Your task to perform on an android device: Do I have any events this weekend? Image 0: 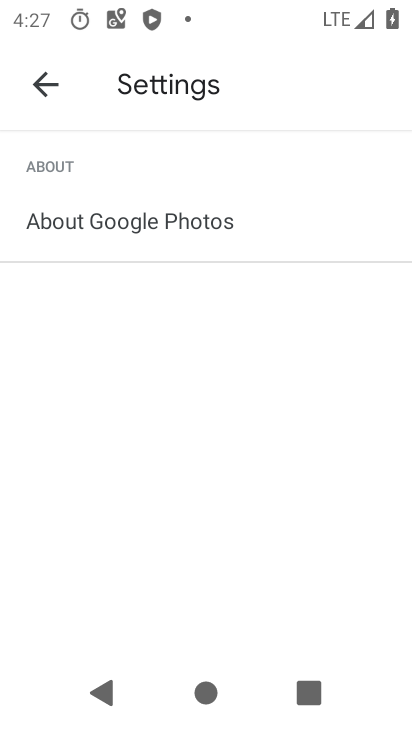
Step 0: press home button
Your task to perform on an android device: Do I have any events this weekend? Image 1: 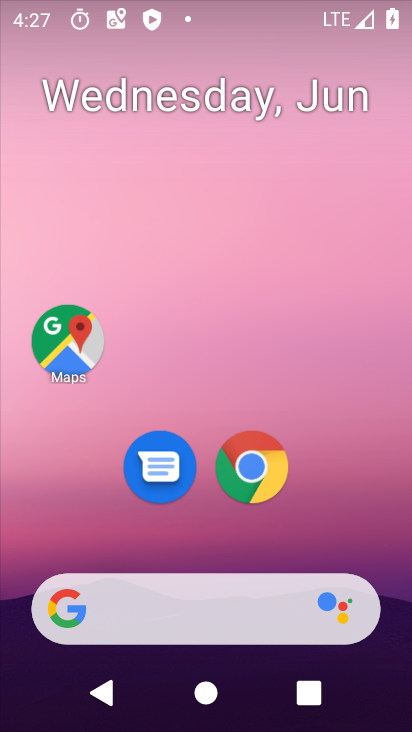
Step 1: drag from (343, 586) to (294, 37)
Your task to perform on an android device: Do I have any events this weekend? Image 2: 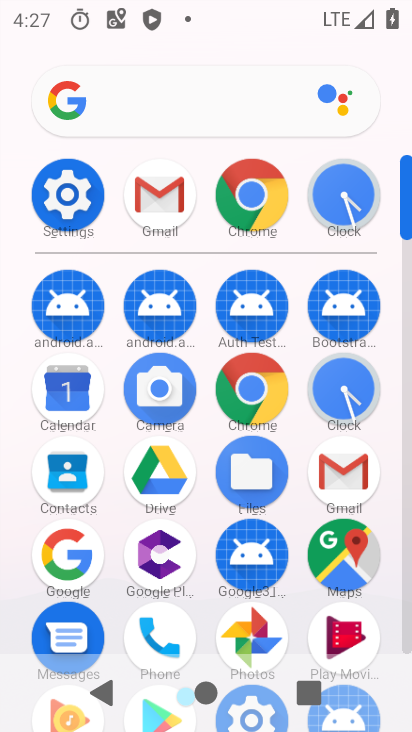
Step 2: click (68, 398)
Your task to perform on an android device: Do I have any events this weekend? Image 3: 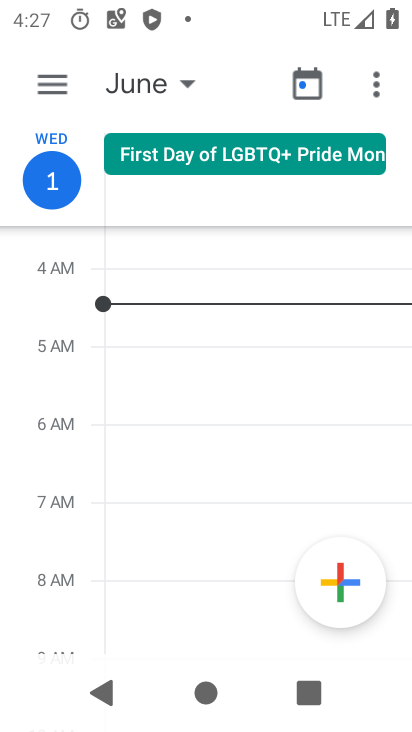
Step 3: click (149, 80)
Your task to perform on an android device: Do I have any events this weekend? Image 4: 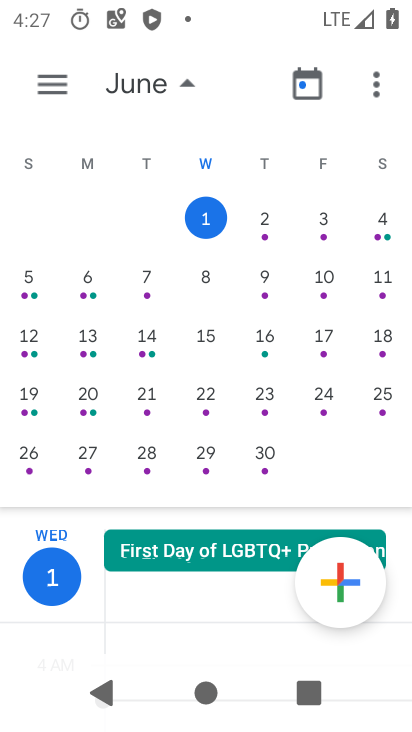
Step 4: click (52, 79)
Your task to perform on an android device: Do I have any events this weekend? Image 5: 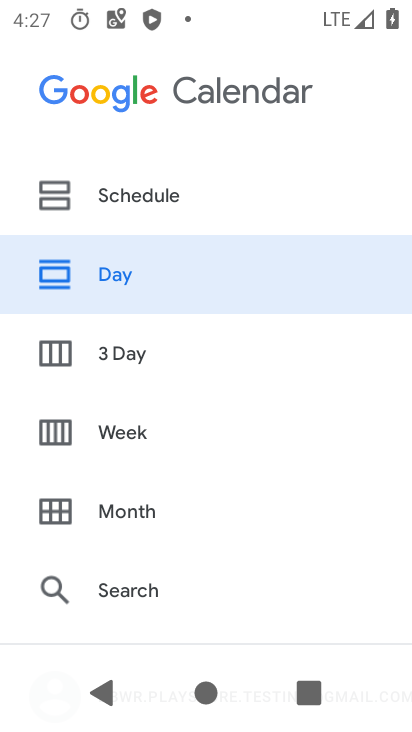
Step 5: click (135, 451)
Your task to perform on an android device: Do I have any events this weekend? Image 6: 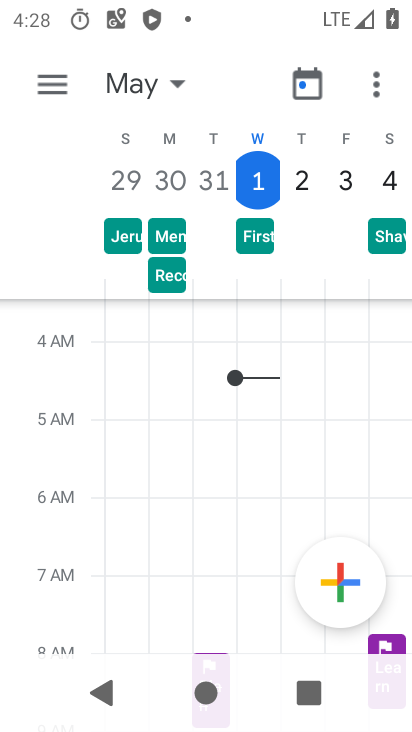
Step 6: click (152, 81)
Your task to perform on an android device: Do I have any events this weekend? Image 7: 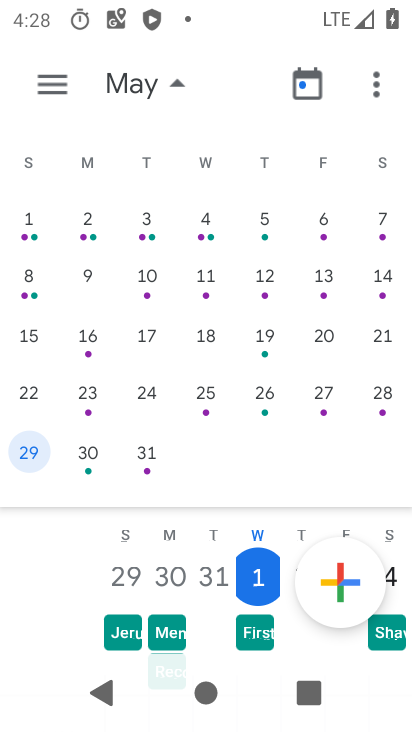
Step 7: click (146, 82)
Your task to perform on an android device: Do I have any events this weekend? Image 8: 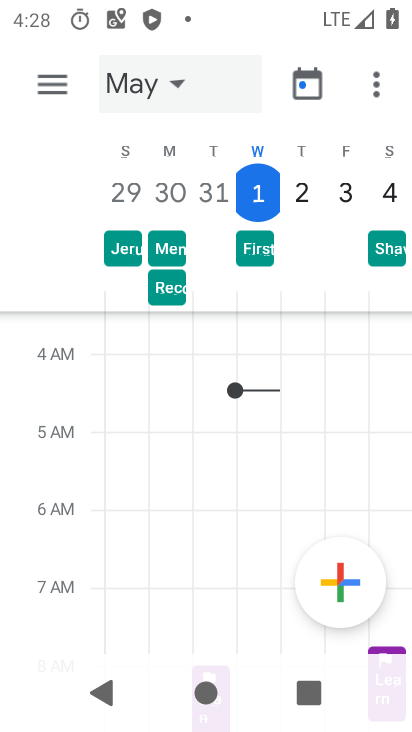
Step 8: task complete